Your task to perform on an android device: Open Google Maps and go to "Timeline" Image 0: 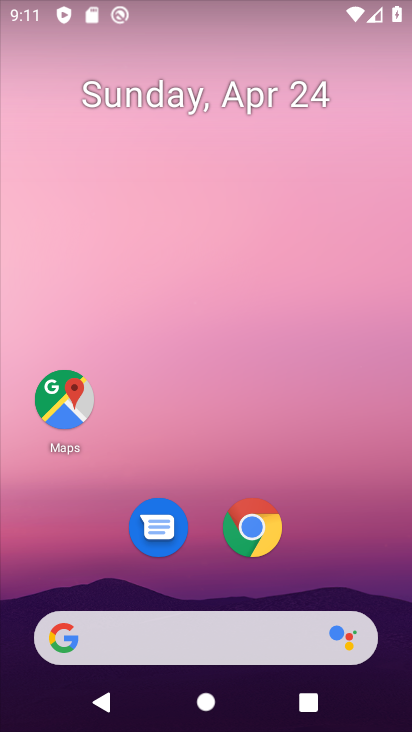
Step 0: drag from (376, 566) to (263, 22)
Your task to perform on an android device: Open Google Maps and go to "Timeline" Image 1: 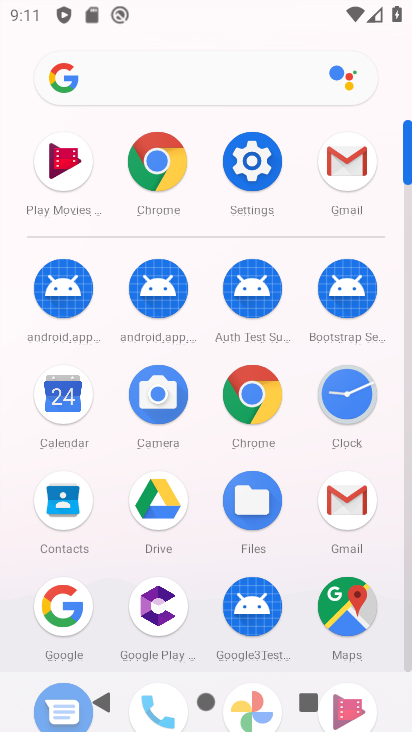
Step 1: click (332, 601)
Your task to perform on an android device: Open Google Maps and go to "Timeline" Image 2: 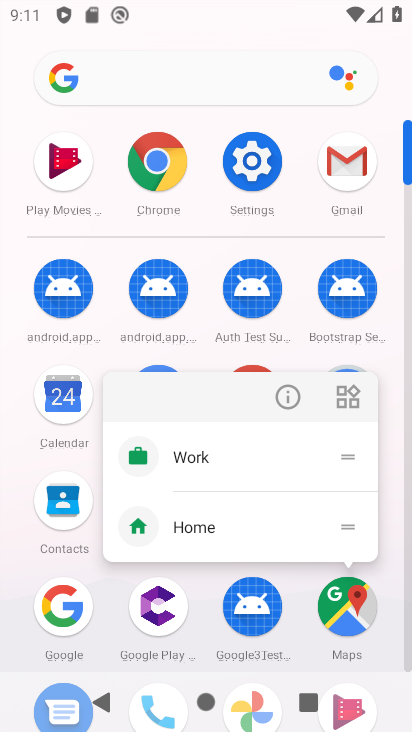
Step 2: click (332, 601)
Your task to perform on an android device: Open Google Maps and go to "Timeline" Image 3: 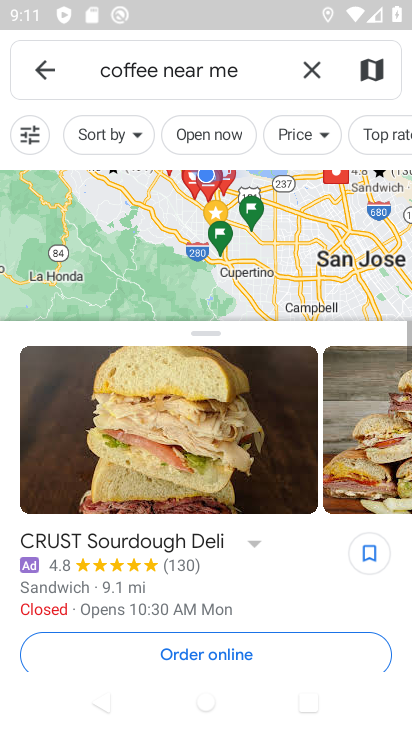
Step 3: click (312, 68)
Your task to perform on an android device: Open Google Maps and go to "Timeline" Image 4: 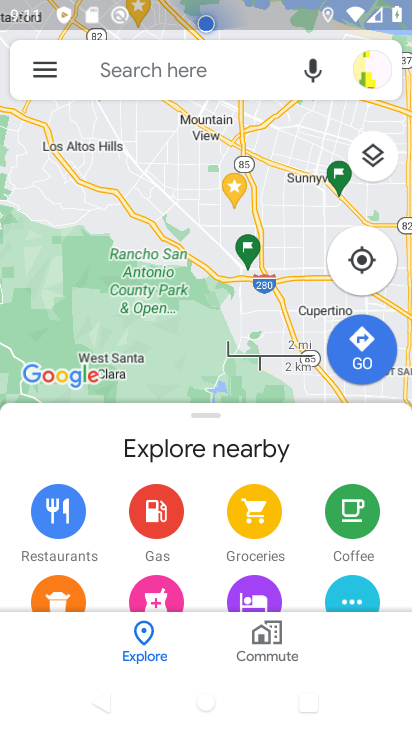
Step 4: click (46, 68)
Your task to perform on an android device: Open Google Maps and go to "Timeline" Image 5: 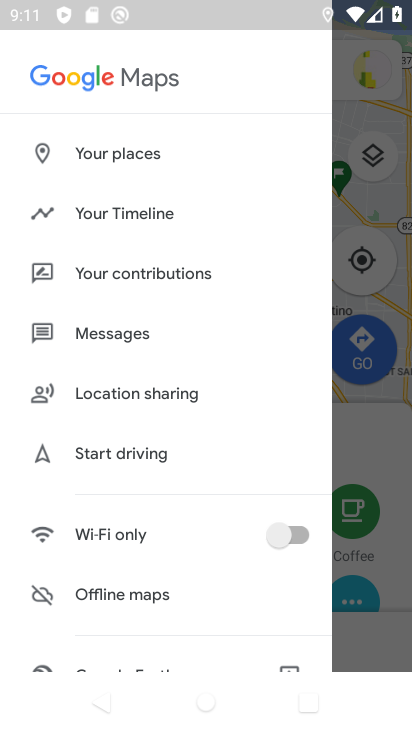
Step 5: click (196, 202)
Your task to perform on an android device: Open Google Maps and go to "Timeline" Image 6: 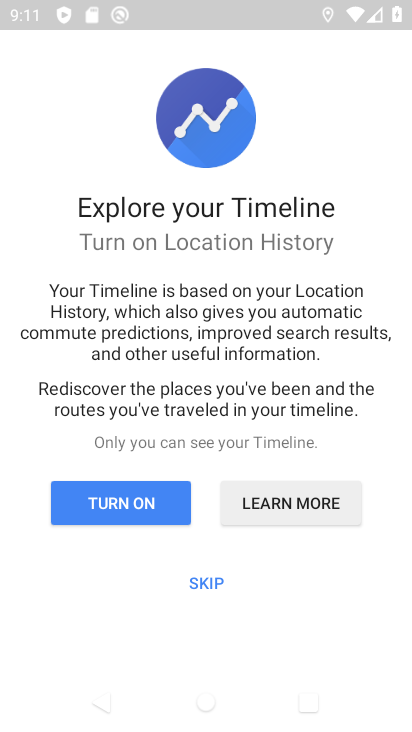
Step 6: task complete